Your task to perform on an android device: Check the news Image 0: 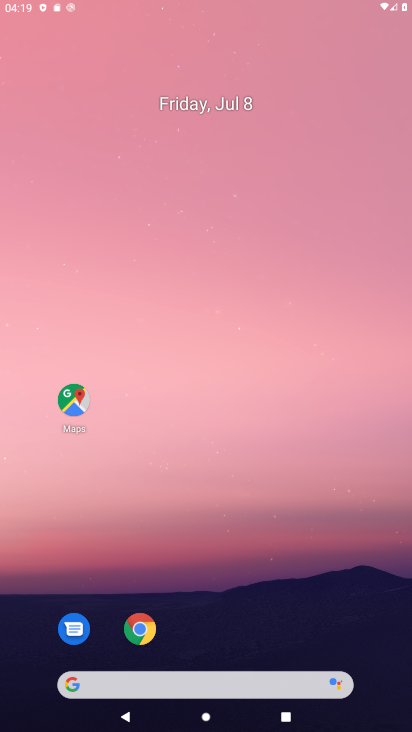
Step 0: press home button
Your task to perform on an android device: Check the news Image 1: 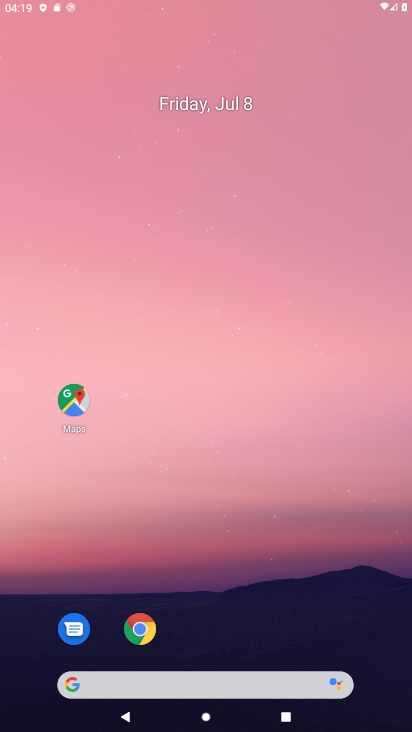
Step 1: drag from (238, 681) to (241, 167)
Your task to perform on an android device: Check the news Image 2: 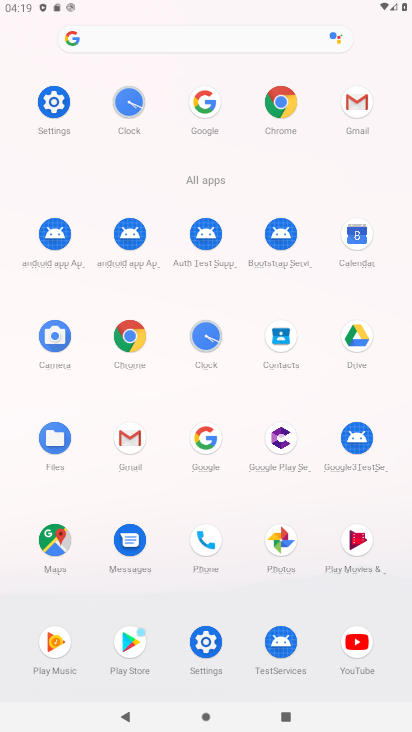
Step 2: click (210, 433)
Your task to perform on an android device: Check the news Image 3: 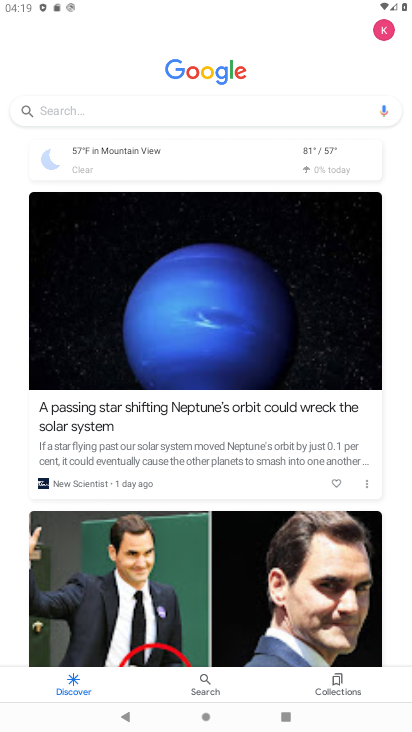
Step 3: task complete